Your task to perform on an android device: toggle show notifications on the lock screen Image 0: 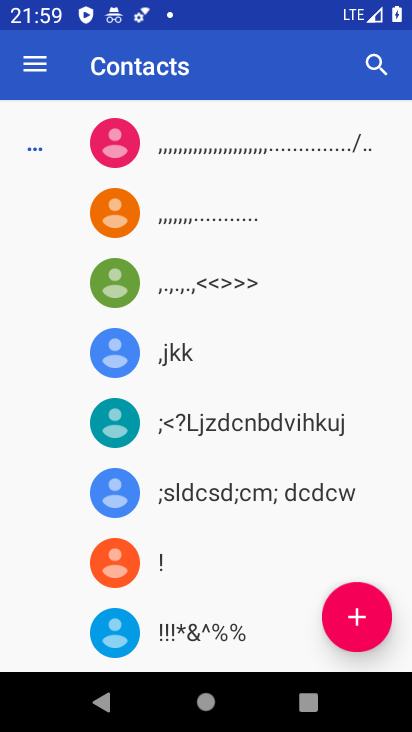
Step 0: press home button
Your task to perform on an android device: toggle show notifications on the lock screen Image 1: 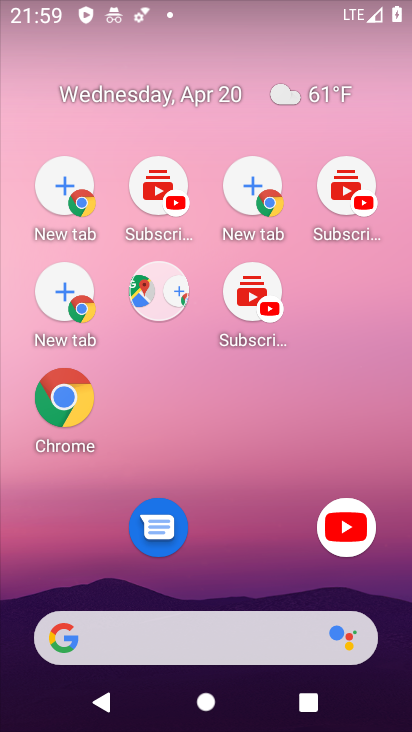
Step 1: drag from (277, 592) to (150, 252)
Your task to perform on an android device: toggle show notifications on the lock screen Image 2: 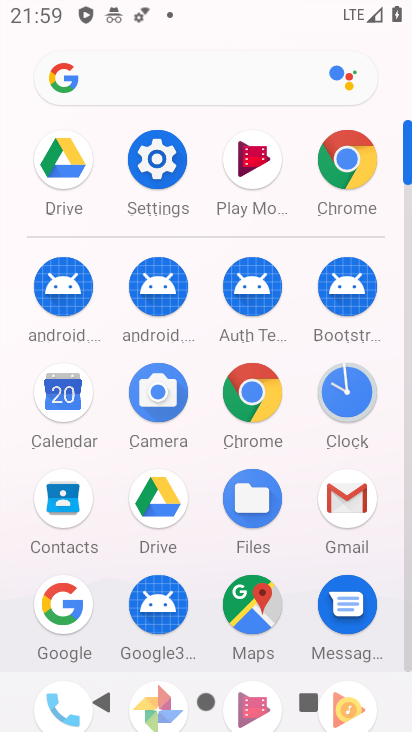
Step 2: drag from (318, 616) to (104, 133)
Your task to perform on an android device: toggle show notifications on the lock screen Image 3: 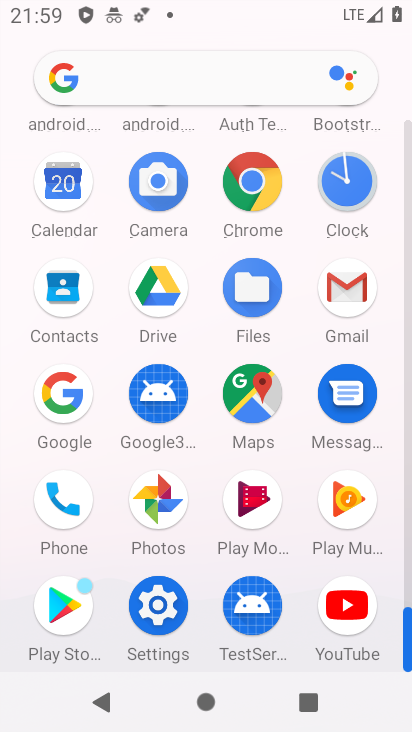
Step 3: click (149, 158)
Your task to perform on an android device: toggle show notifications on the lock screen Image 4: 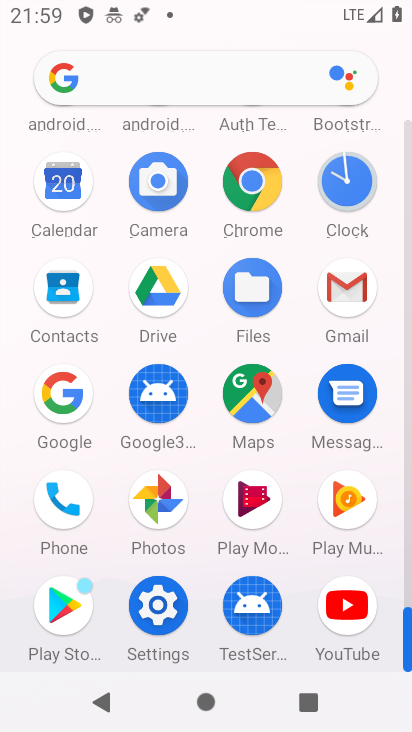
Step 4: click (149, 158)
Your task to perform on an android device: toggle show notifications on the lock screen Image 5: 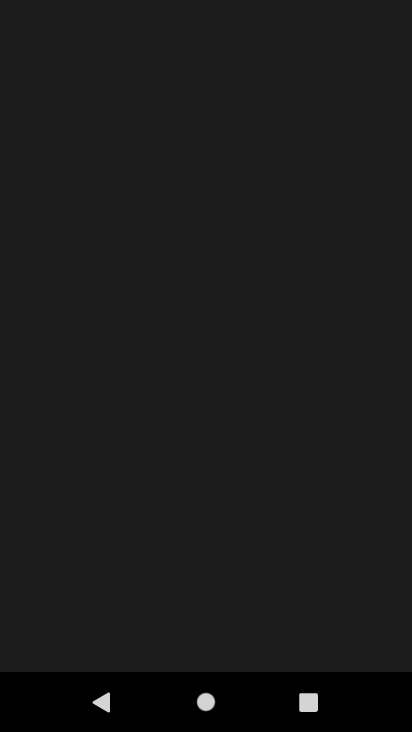
Step 5: click (399, 549)
Your task to perform on an android device: toggle show notifications on the lock screen Image 6: 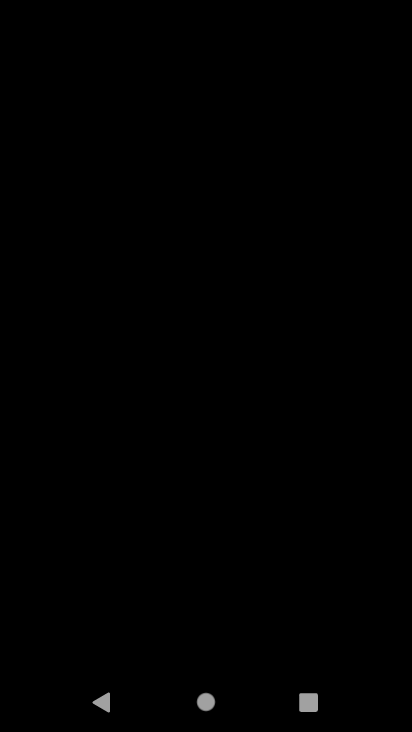
Step 6: drag from (411, 569) to (400, 530)
Your task to perform on an android device: toggle show notifications on the lock screen Image 7: 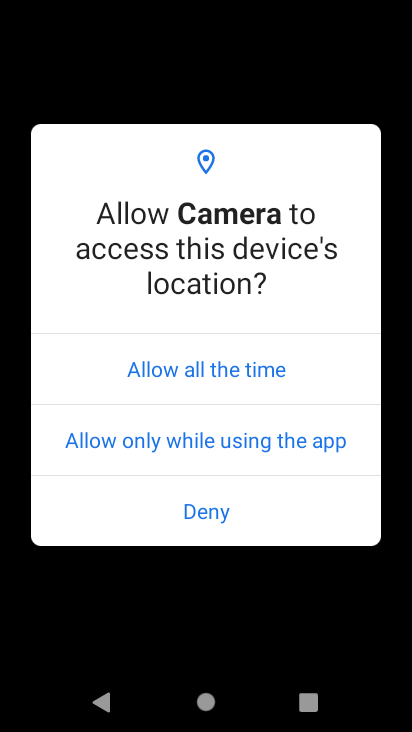
Step 7: click (222, 366)
Your task to perform on an android device: toggle show notifications on the lock screen Image 8: 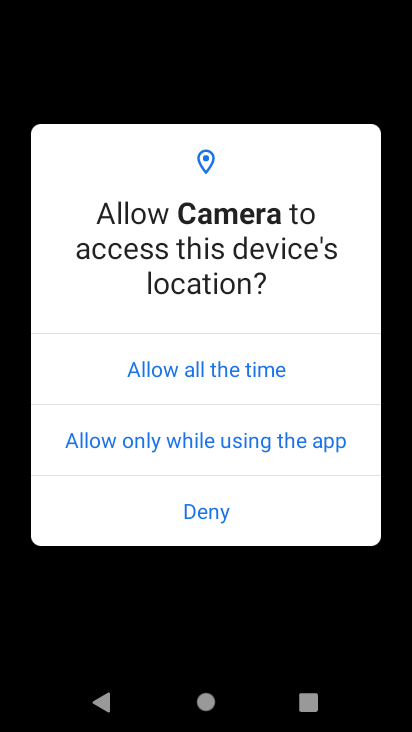
Step 8: press home button
Your task to perform on an android device: toggle show notifications on the lock screen Image 9: 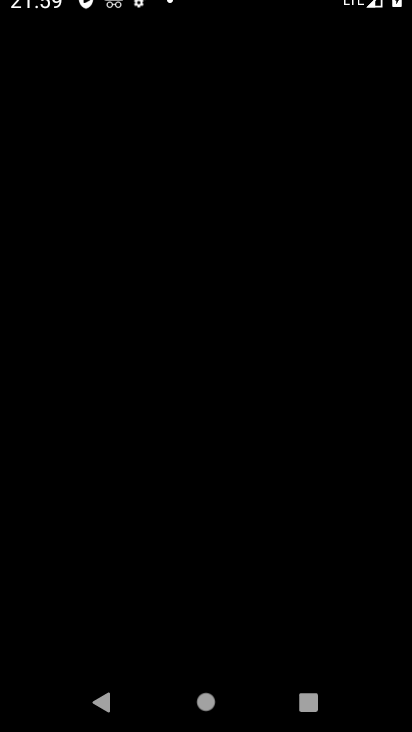
Step 9: press home button
Your task to perform on an android device: toggle show notifications on the lock screen Image 10: 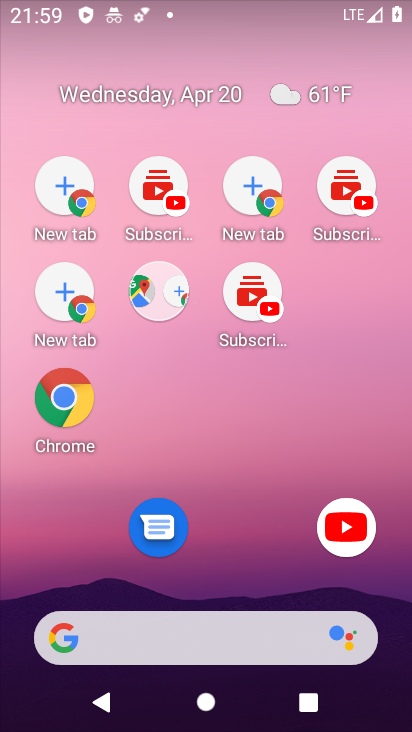
Step 10: click (404, 629)
Your task to perform on an android device: toggle show notifications on the lock screen Image 11: 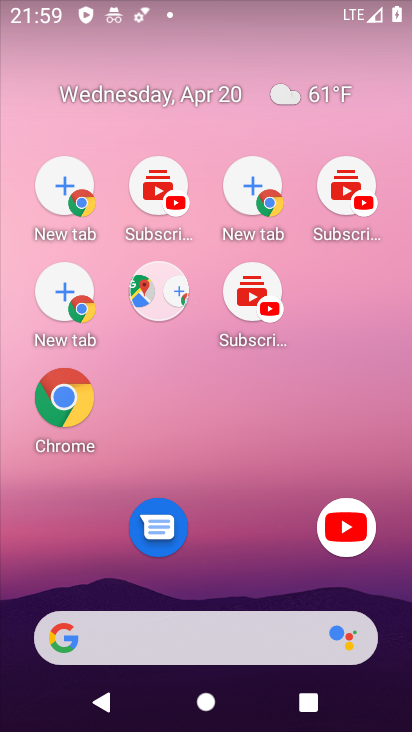
Step 11: press home button
Your task to perform on an android device: toggle show notifications on the lock screen Image 12: 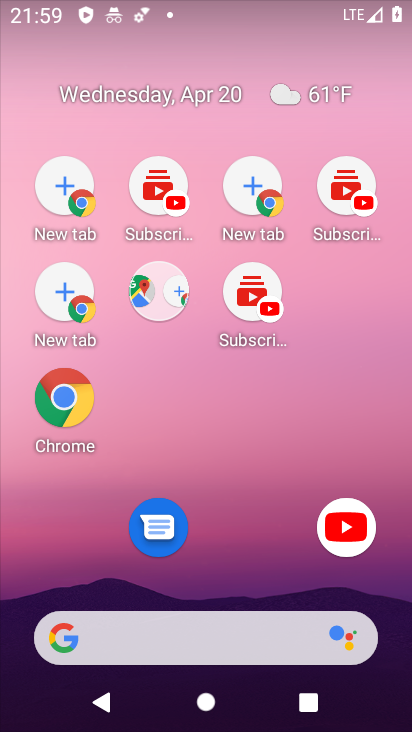
Step 12: drag from (302, 699) to (152, 65)
Your task to perform on an android device: toggle show notifications on the lock screen Image 13: 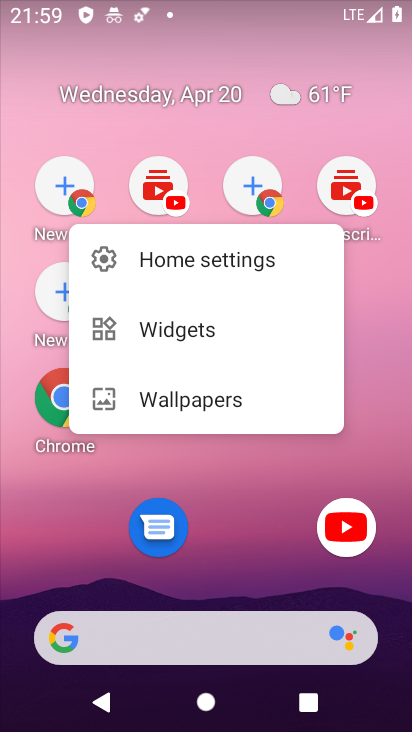
Step 13: drag from (252, 529) to (152, 42)
Your task to perform on an android device: toggle show notifications on the lock screen Image 14: 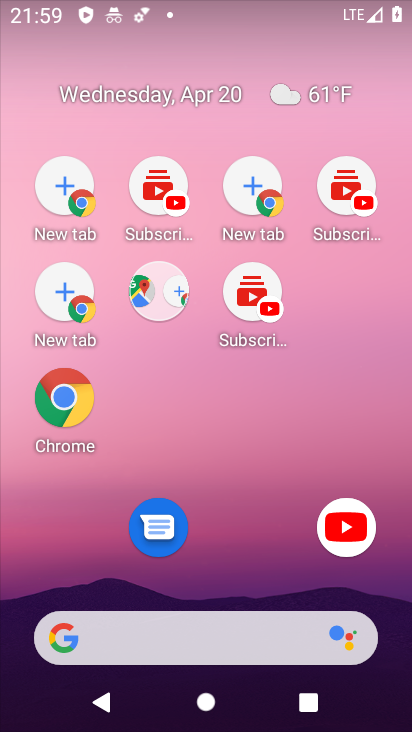
Step 14: drag from (170, 262) to (162, 228)
Your task to perform on an android device: toggle show notifications on the lock screen Image 15: 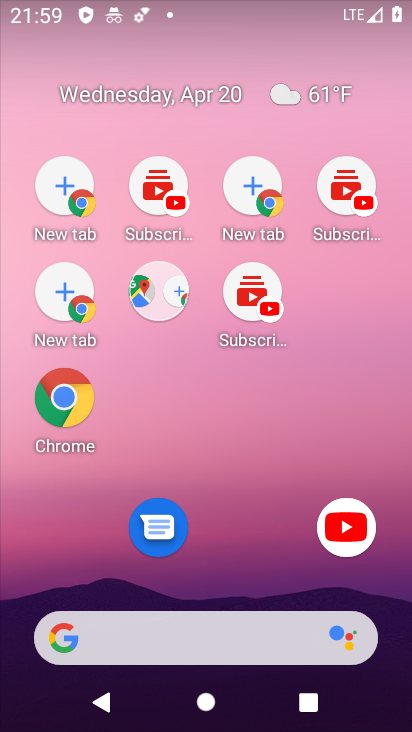
Step 15: click (210, 152)
Your task to perform on an android device: toggle show notifications on the lock screen Image 16: 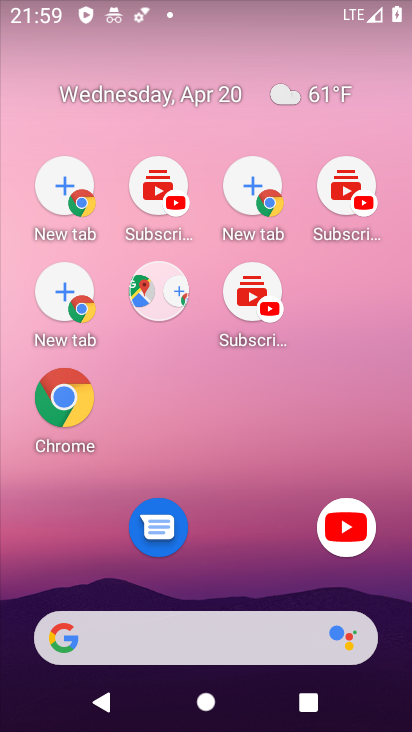
Step 16: drag from (268, 589) to (105, 141)
Your task to perform on an android device: toggle show notifications on the lock screen Image 17: 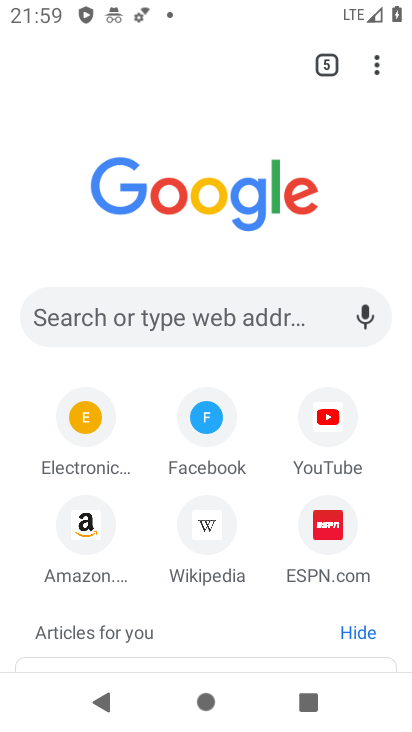
Step 17: drag from (138, 219) to (128, 178)
Your task to perform on an android device: toggle show notifications on the lock screen Image 18: 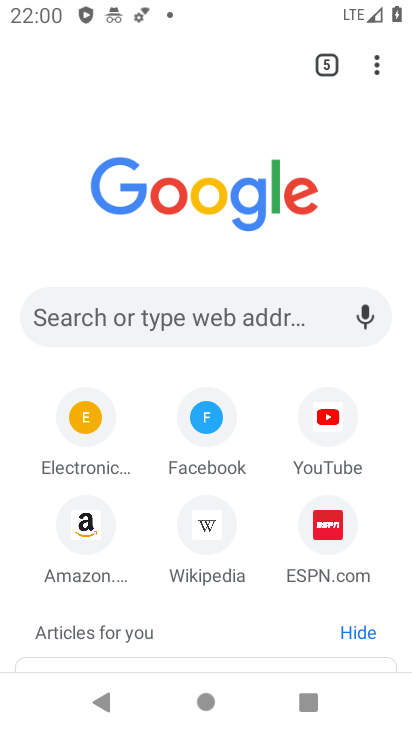
Step 18: press home button
Your task to perform on an android device: toggle show notifications on the lock screen Image 19: 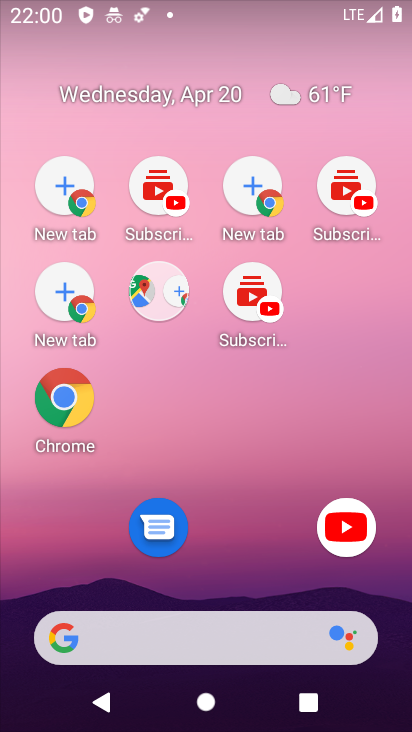
Step 19: drag from (241, 523) to (86, 53)
Your task to perform on an android device: toggle show notifications on the lock screen Image 20: 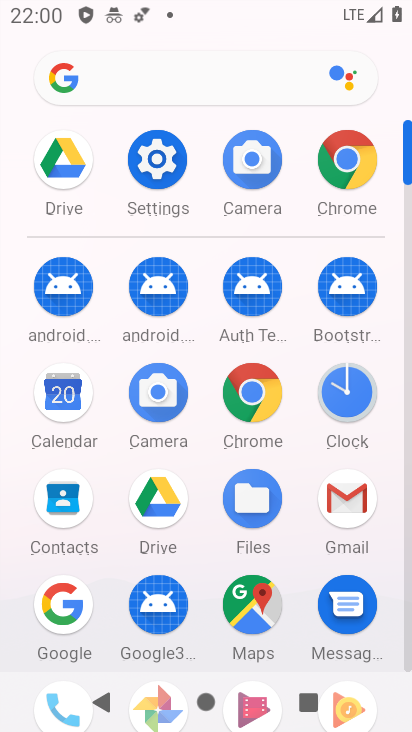
Step 20: click (150, 176)
Your task to perform on an android device: toggle show notifications on the lock screen Image 21: 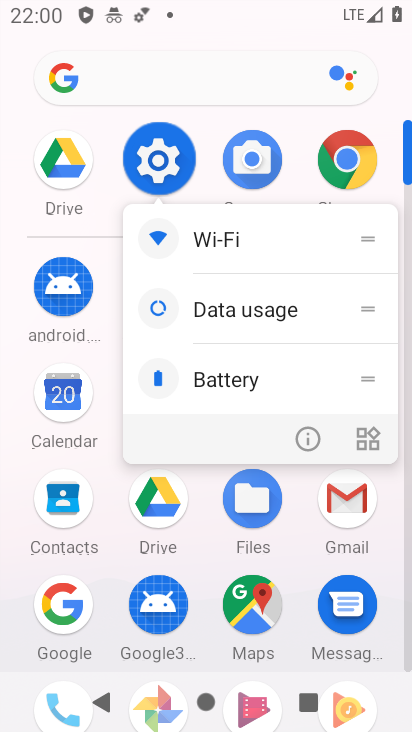
Step 21: click (152, 175)
Your task to perform on an android device: toggle show notifications on the lock screen Image 22: 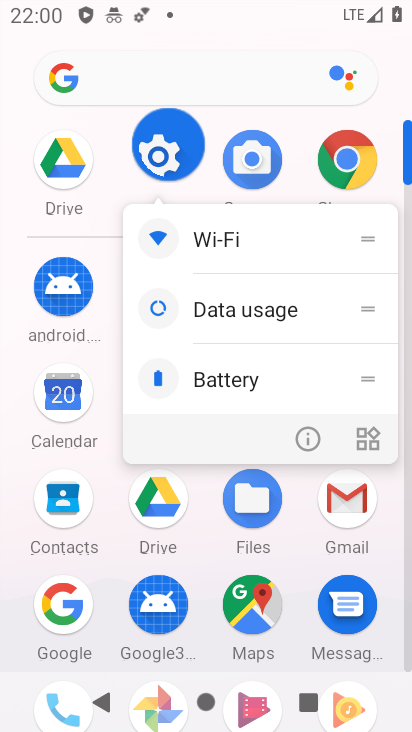
Step 22: click (160, 155)
Your task to perform on an android device: toggle show notifications on the lock screen Image 23: 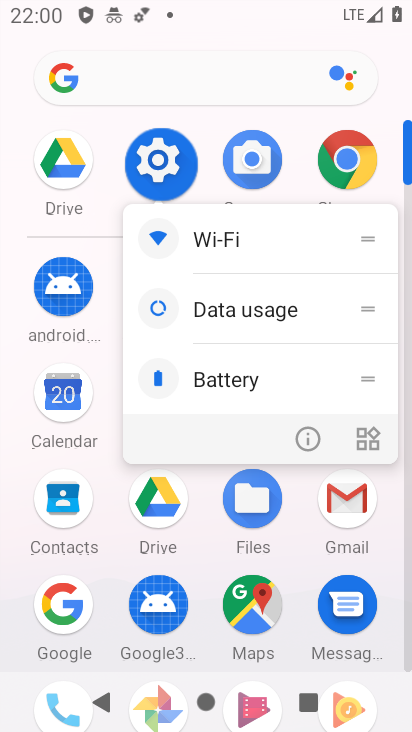
Step 23: click (165, 157)
Your task to perform on an android device: toggle show notifications on the lock screen Image 24: 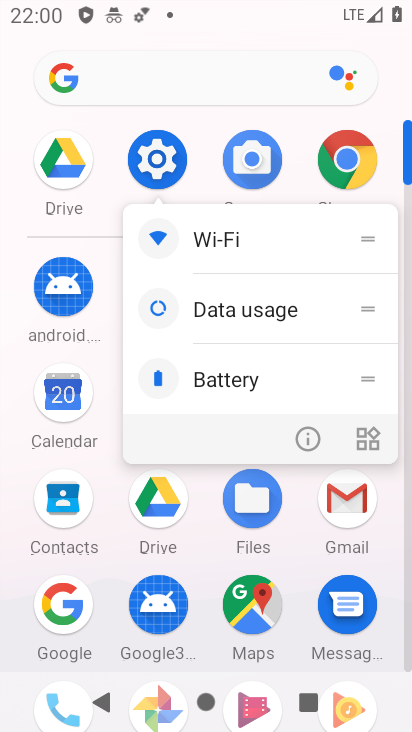
Step 24: click (165, 157)
Your task to perform on an android device: toggle show notifications on the lock screen Image 25: 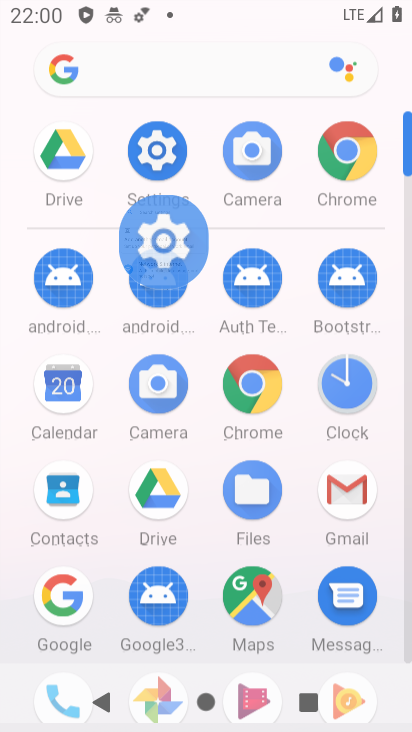
Step 25: click (166, 158)
Your task to perform on an android device: toggle show notifications on the lock screen Image 26: 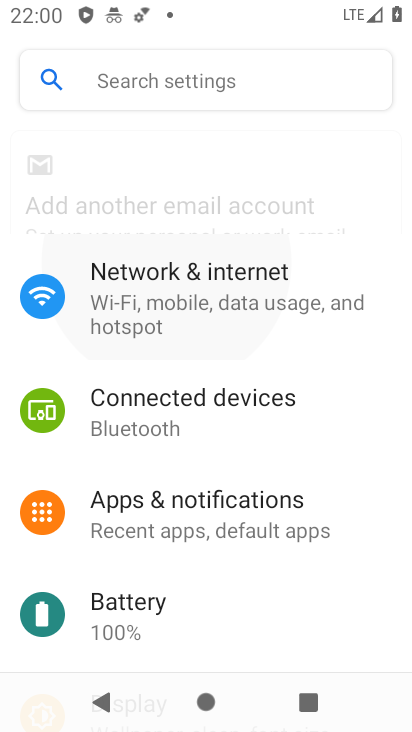
Step 26: click (166, 158)
Your task to perform on an android device: toggle show notifications on the lock screen Image 27: 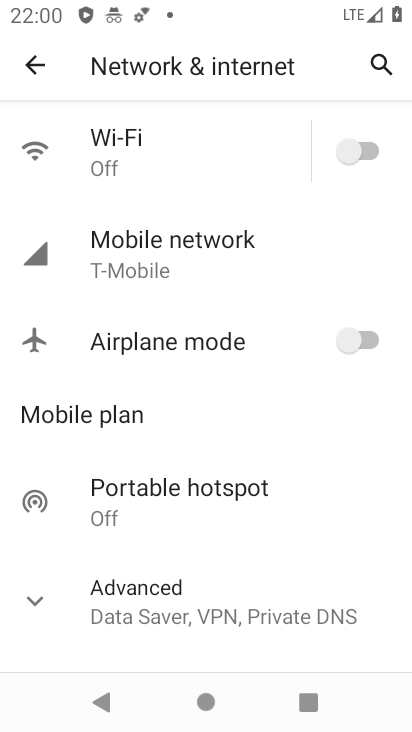
Step 27: click (125, 251)
Your task to perform on an android device: toggle show notifications on the lock screen Image 28: 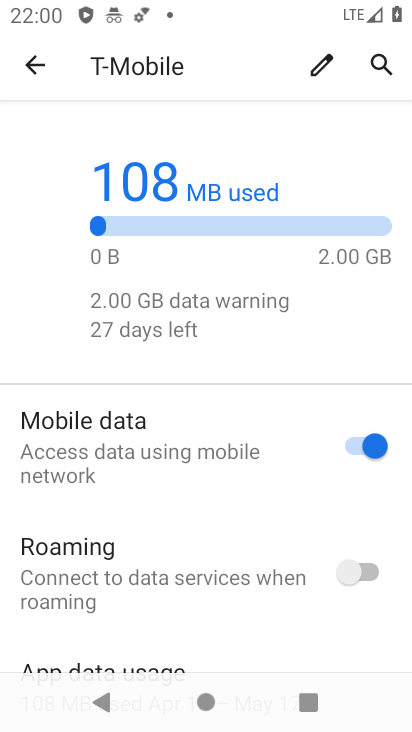
Step 28: click (40, 64)
Your task to perform on an android device: toggle show notifications on the lock screen Image 29: 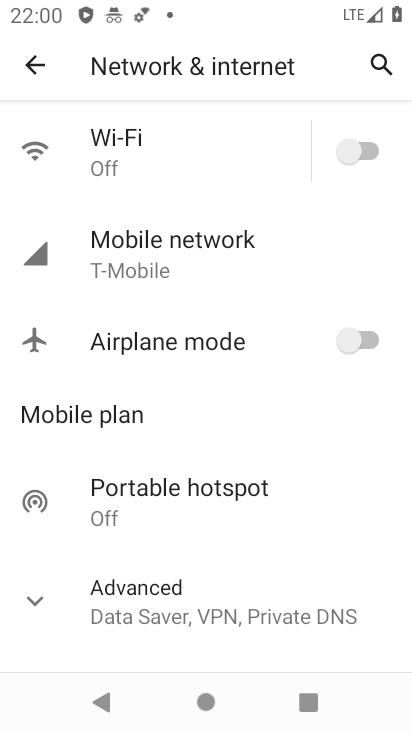
Step 29: click (28, 60)
Your task to perform on an android device: toggle show notifications on the lock screen Image 30: 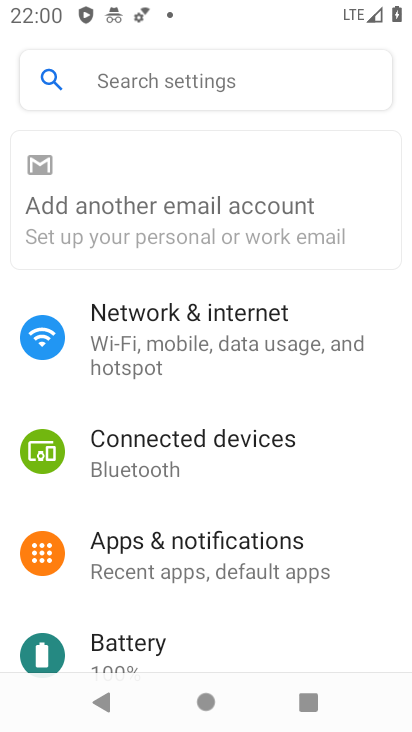
Step 30: click (42, 57)
Your task to perform on an android device: toggle show notifications on the lock screen Image 31: 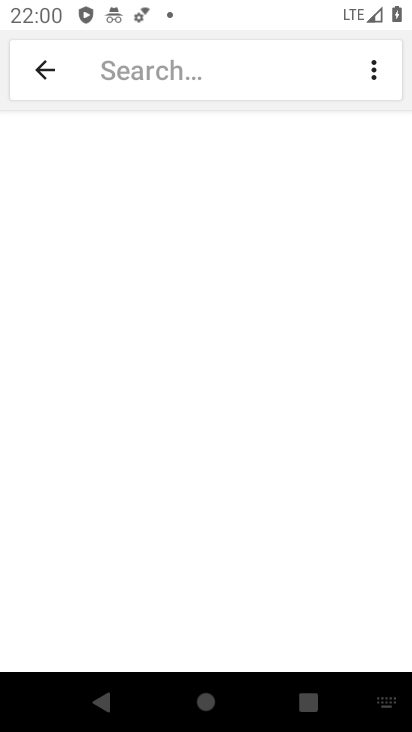
Step 31: click (46, 66)
Your task to perform on an android device: toggle show notifications on the lock screen Image 32: 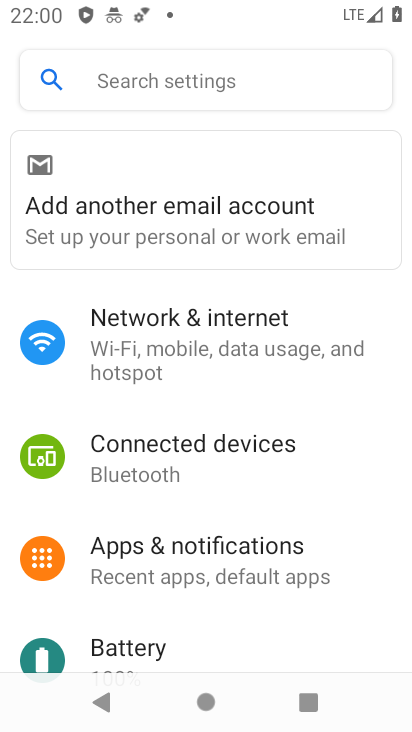
Step 32: click (162, 344)
Your task to perform on an android device: toggle show notifications on the lock screen Image 33: 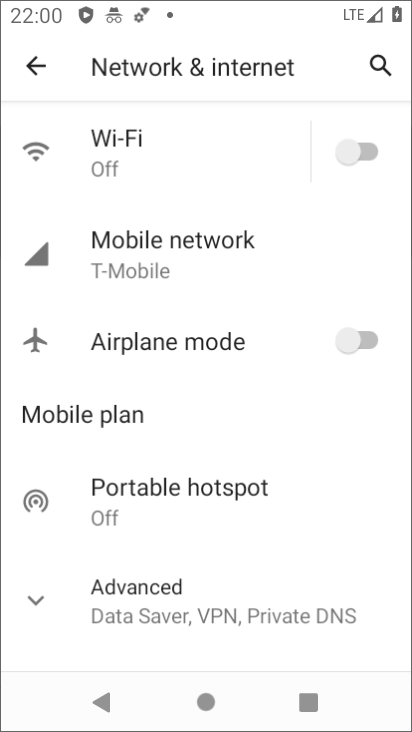
Step 33: click (190, 553)
Your task to perform on an android device: toggle show notifications on the lock screen Image 34: 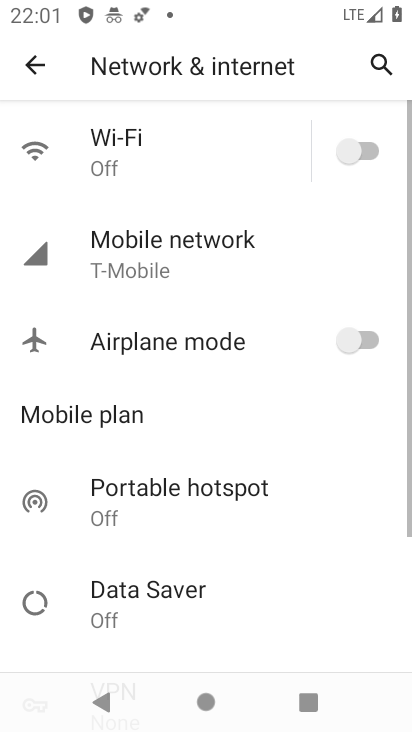
Step 34: click (30, 64)
Your task to perform on an android device: toggle show notifications on the lock screen Image 35: 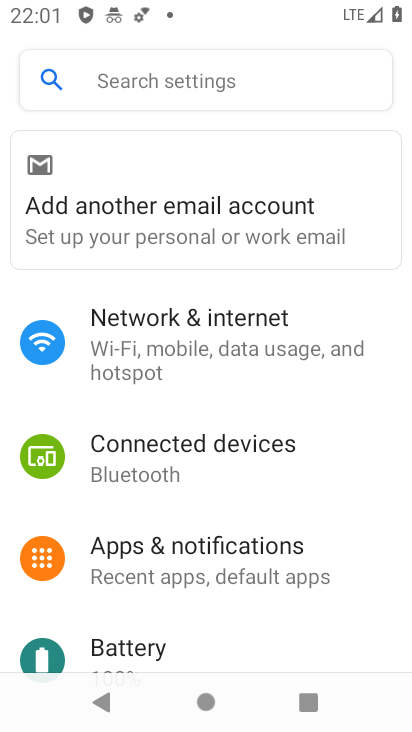
Step 35: click (177, 551)
Your task to perform on an android device: toggle show notifications on the lock screen Image 36: 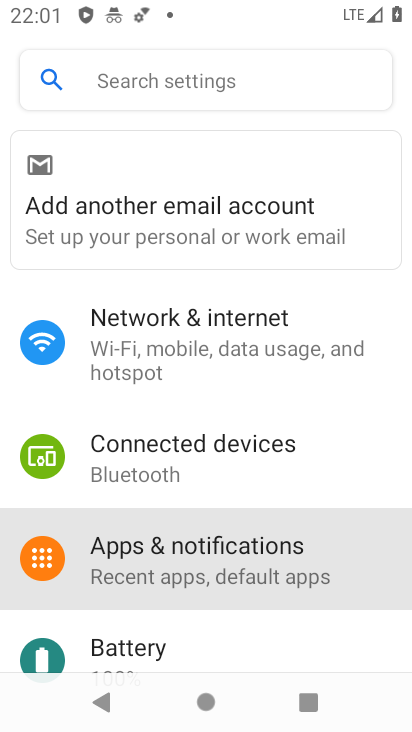
Step 36: click (186, 587)
Your task to perform on an android device: toggle show notifications on the lock screen Image 37: 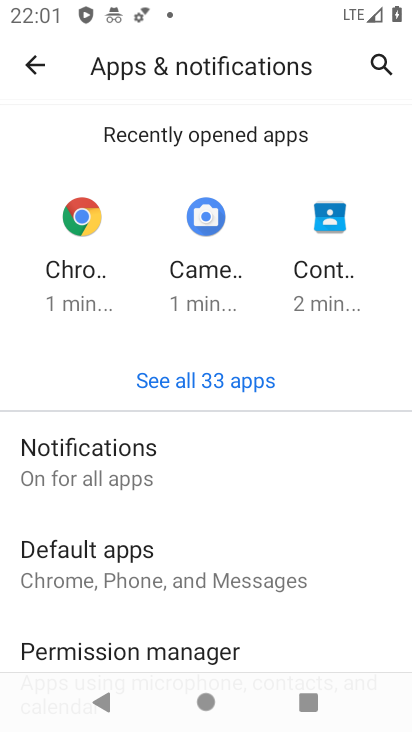
Step 37: click (89, 465)
Your task to perform on an android device: toggle show notifications on the lock screen Image 38: 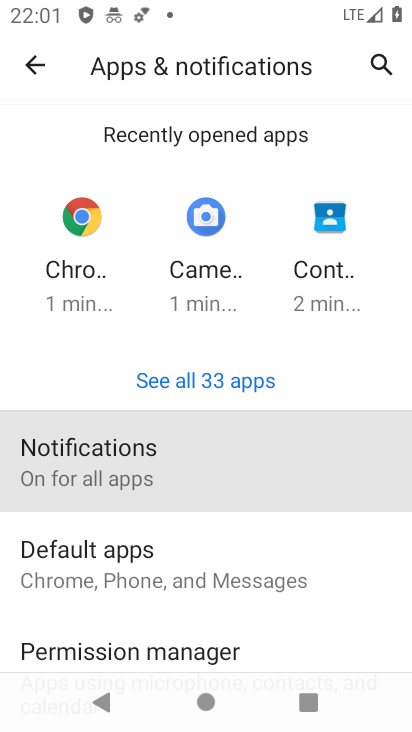
Step 38: click (89, 465)
Your task to perform on an android device: toggle show notifications on the lock screen Image 39: 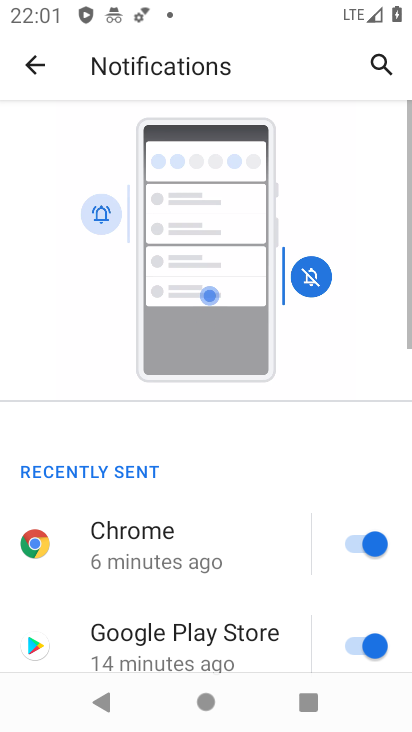
Step 39: drag from (191, 511) to (188, 154)
Your task to perform on an android device: toggle show notifications on the lock screen Image 40: 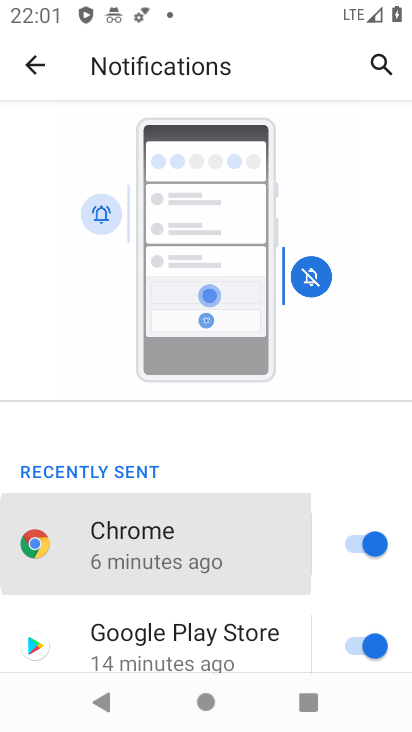
Step 40: drag from (184, 364) to (184, 220)
Your task to perform on an android device: toggle show notifications on the lock screen Image 41: 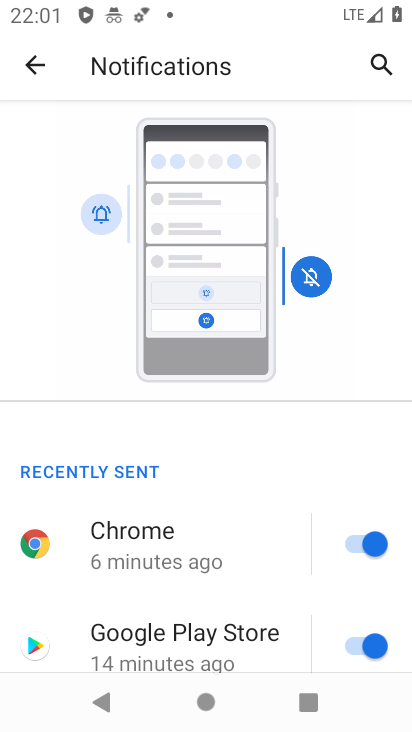
Step 41: drag from (238, 370) to (238, 200)
Your task to perform on an android device: toggle show notifications on the lock screen Image 42: 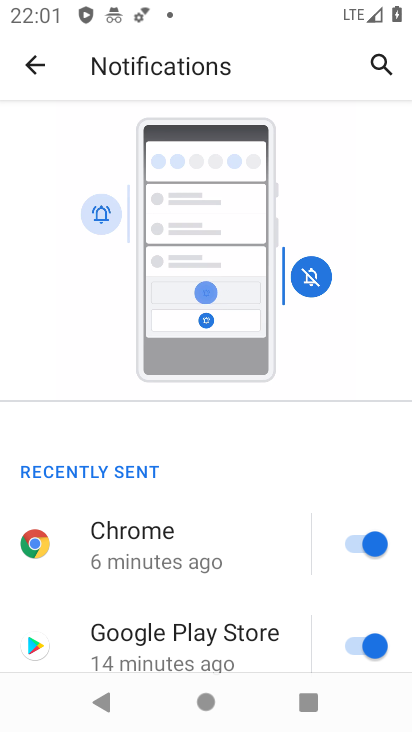
Step 42: drag from (241, 358) to (241, 322)
Your task to perform on an android device: toggle show notifications on the lock screen Image 43: 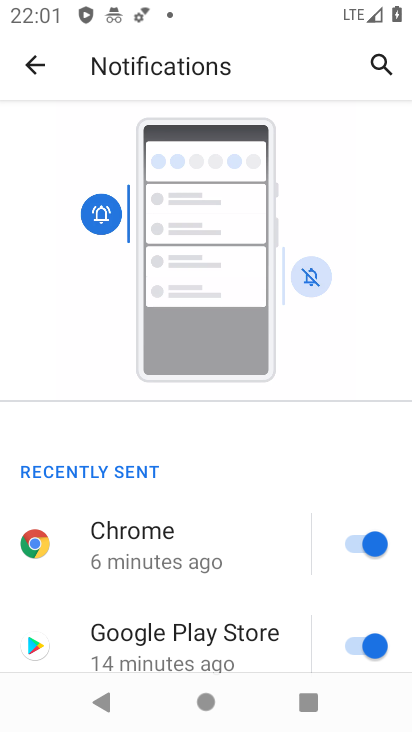
Step 43: drag from (240, 379) to (235, 185)
Your task to perform on an android device: toggle show notifications on the lock screen Image 44: 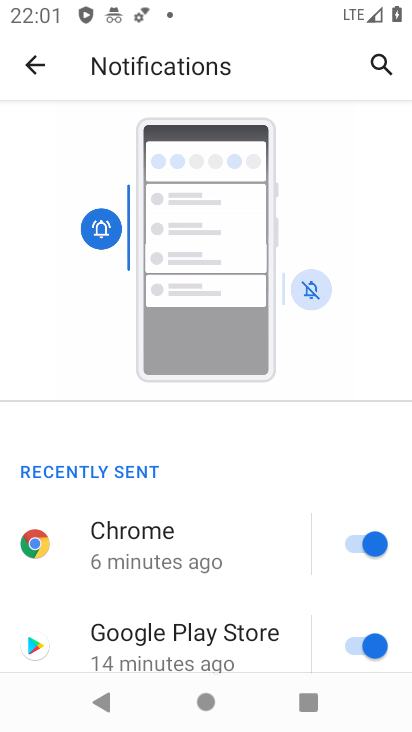
Step 44: drag from (214, 158) to (294, 155)
Your task to perform on an android device: toggle show notifications on the lock screen Image 45: 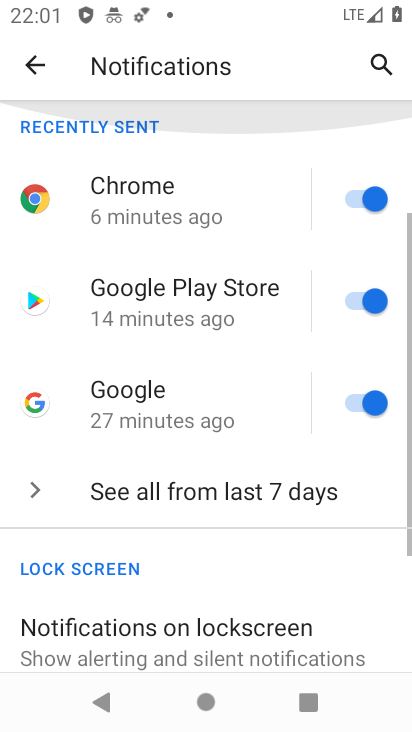
Step 45: click (223, 145)
Your task to perform on an android device: toggle show notifications on the lock screen Image 46: 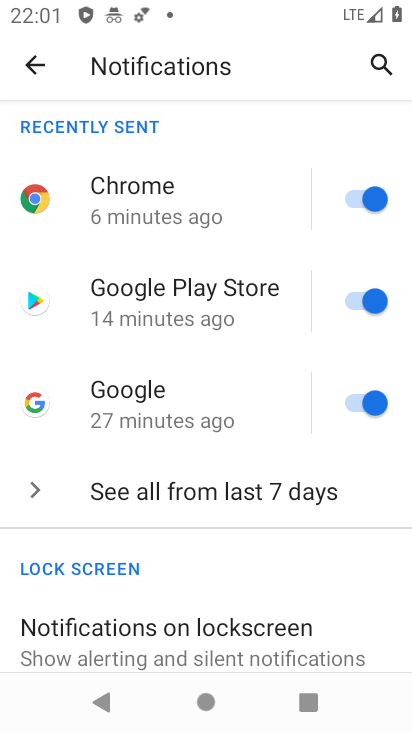
Step 46: drag from (206, 324) to (206, 163)
Your task to perform on an android device: toggle show notifications on the lock screen Image 47: 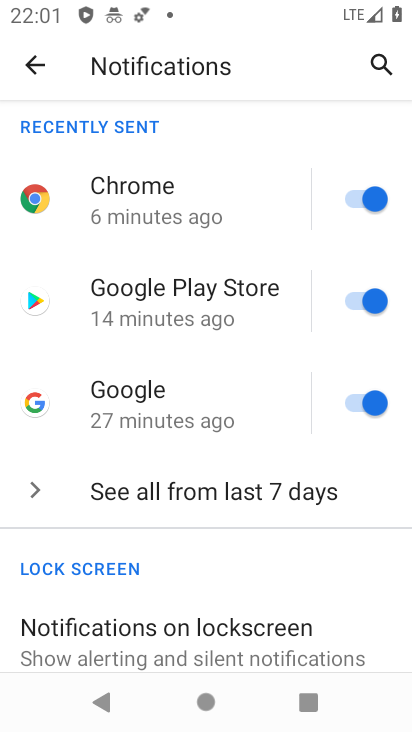
Step 47: drag from (218, 390) to (206, 290)
Your task to perform on an android device: toggle show notifications on the lock screen Image 48: 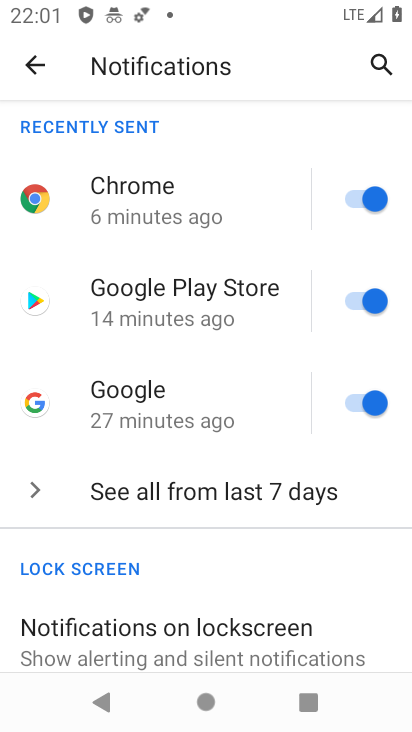
Step 48: click (195, 632)
Your task to perform on an android device: toggle show notifications on the lock screen Image 49: 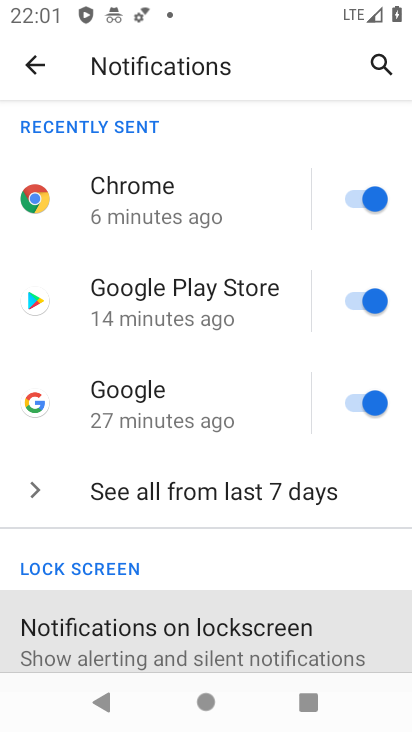
Step 49: click (183, 642)
Your task to perform on an android device: toggle show notifications on the lock screen Image 50: 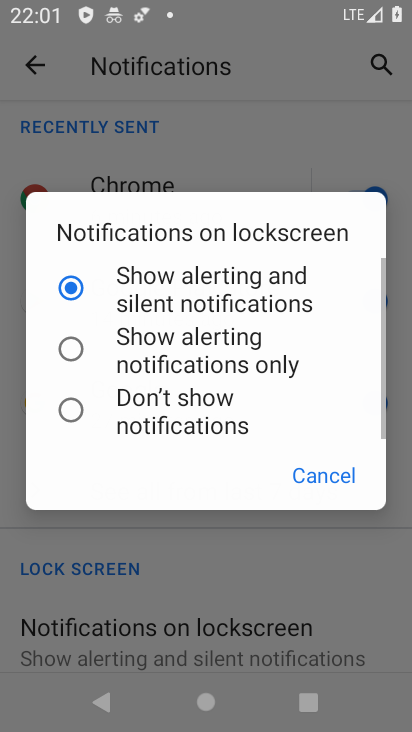
Step 50: click (183, 642)
Your task to perform on an android device: toggle show notifications on the lock screen Image 51: 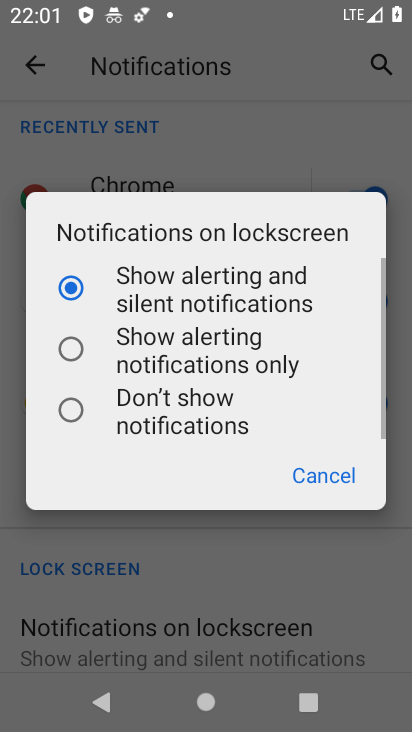
Step 51: click (177, 637)
Your task to perform on an android device: toggle show notifications on the lock screen Image 52: 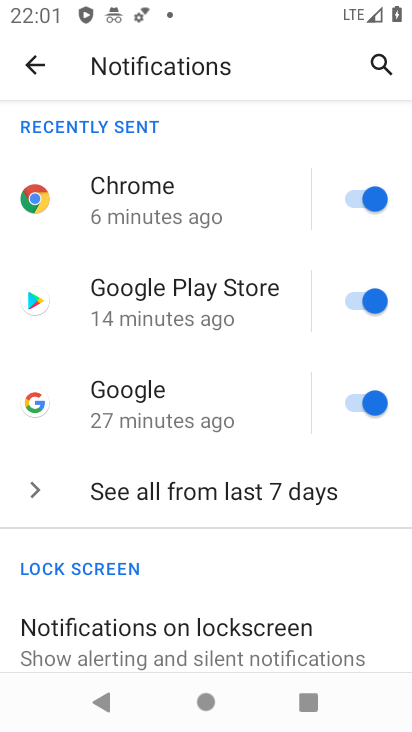
Step 52: click (154, 640)
Your task to perform on an android device: toggle show notifications on the lock screen Image 53: 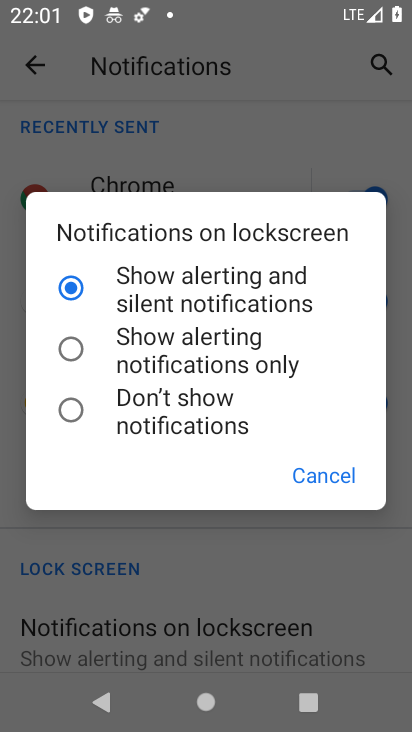
Step 53: press home button
Your task to perform on an android device: toggle show notifications on the lock screen Image 54: 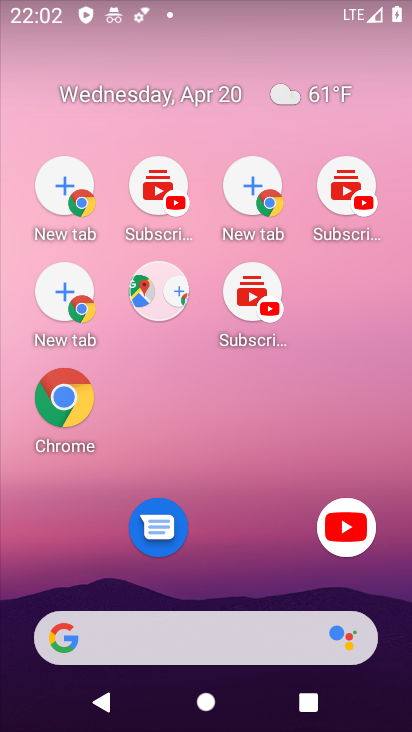
Step 54: drag from (243, 692) to (159, 235)
Your task to perform on an android device: toggle show notifications on the lock screen Image 55: 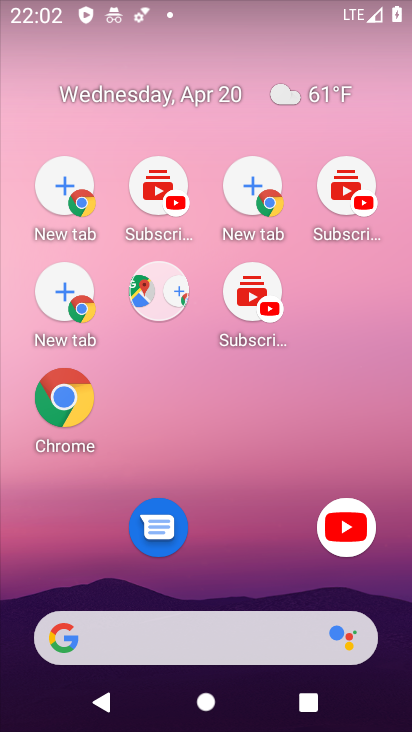
Step 55: drag from (146, 294) to (163, 192)
Your task to perform on an android device: toggle show notifications on the lock screen Image 56: 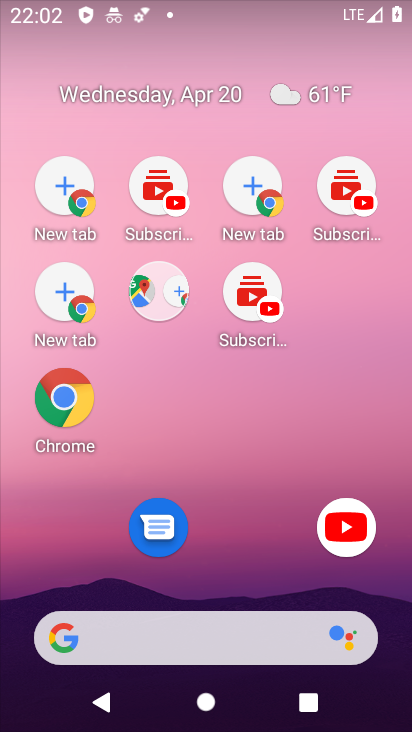
Step 56: drag from (193, 483) to (140, 128)
Your task to perform on an android device: toggle show notifications on the lock screen Image 57: 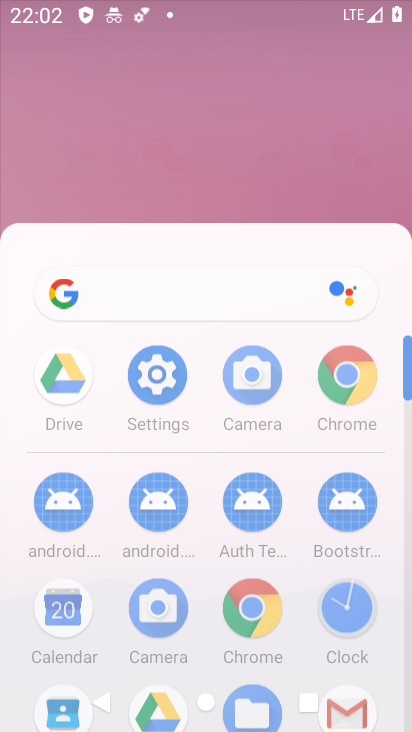
Step 57: drag from (293, 584) to (215, 143)
Your task to perform on an android device: toggle show notifications on the lock screen Image 58: 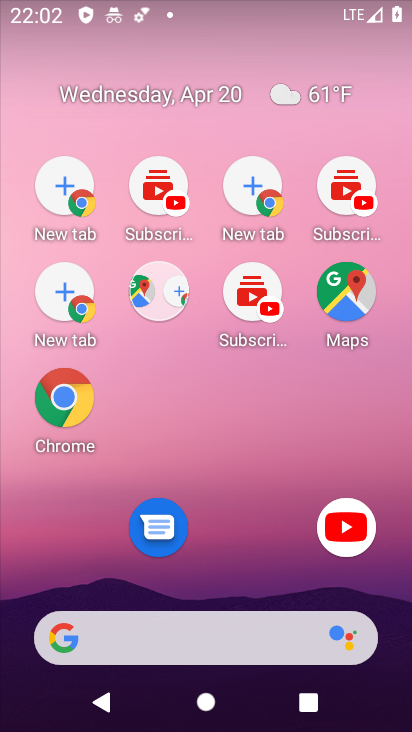
Step 58: drag from (222, 485) to (116, 182)
Your task to perform on an android device: toggle show notifications on the lock screen Image 59: 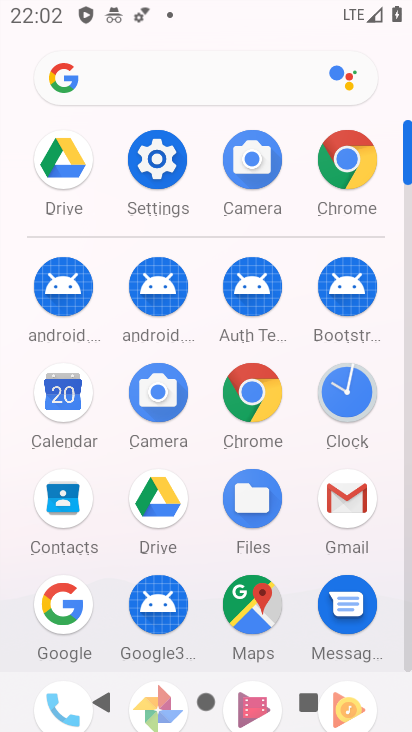
Step 59: click (160, 157)
Your task to perform on an android device: toggle show notifications on the lock screen Image 60: 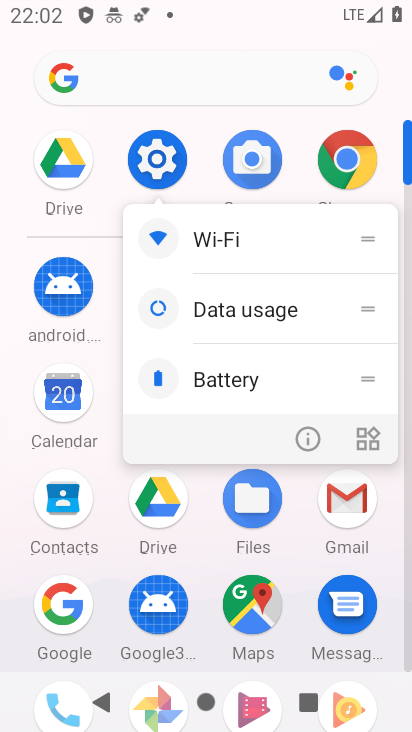
Step 60: click (160, 157)
Your task to perform on an android device: toggle show notifications on the lock screen Image 61: 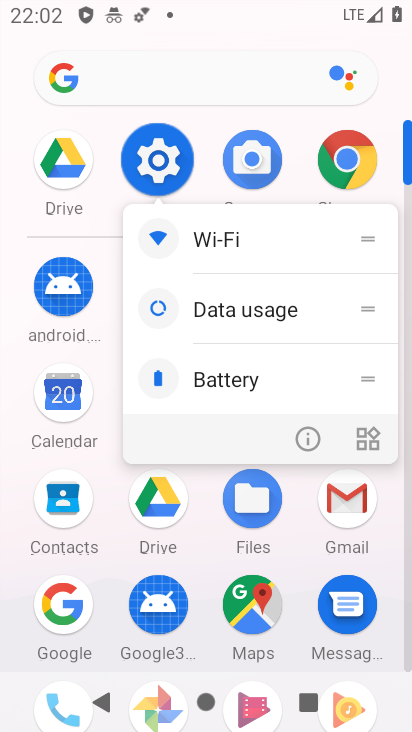
Step 61: click (162, 162)
Your task to perform on an android device: toggle show notifications on the lock screen Image 62: 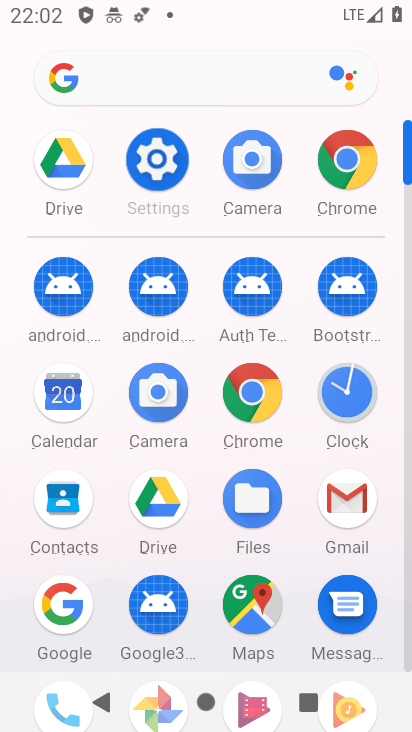
Step 62: click (163, 162)
Your task to perform on an android device: toggle show notifications on the lock screen Image 63: 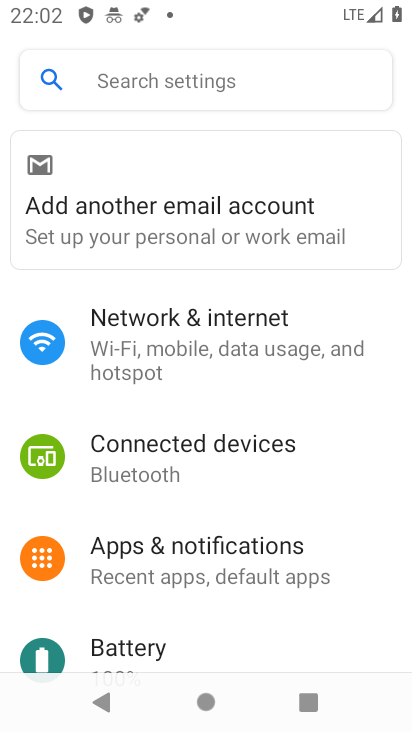
Step 63: click (130, 355)
Your task to perform on an android device: toggle show notifications on the lock screen Image 64: 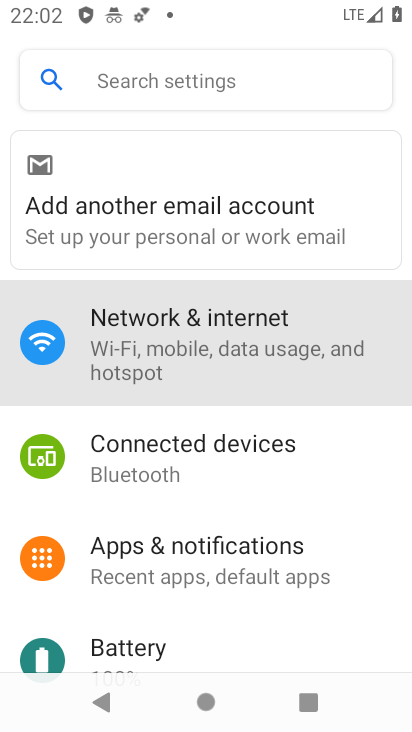
Step 64: click (133, 356)
Your task to perform on an android device: toggle show notifications on the lock screen Image 65: 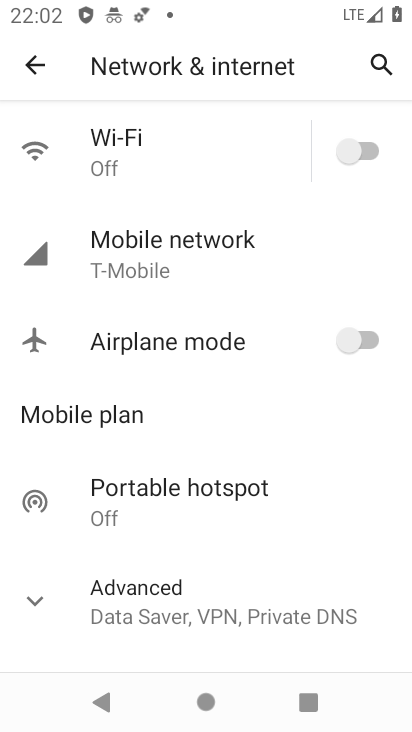
Step 65: click (28, 66)
Your task to perform on an android device: toggle show notifications on the lock screen Image 66: 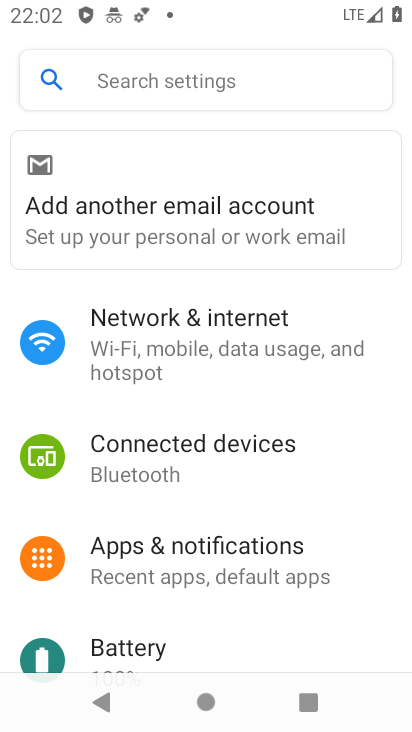
Step 66: click (172, 571)
Your task to perform on an android device: toggle show notifications on the lock screen Image 67: 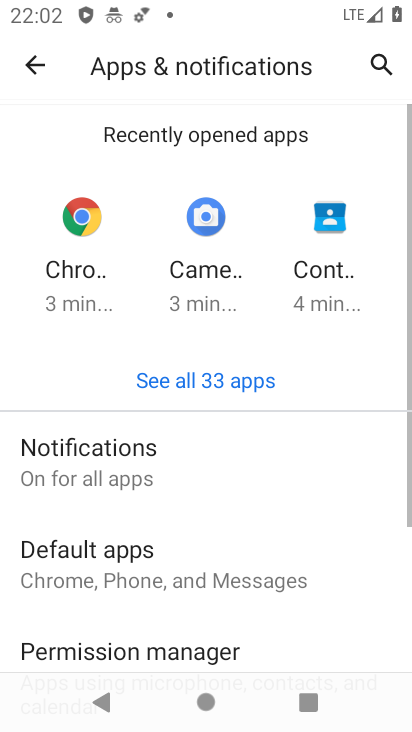
Step 67: click (32, 61)
Your task to perform on an android device: toggle show notifications on the lock screen Image 68: 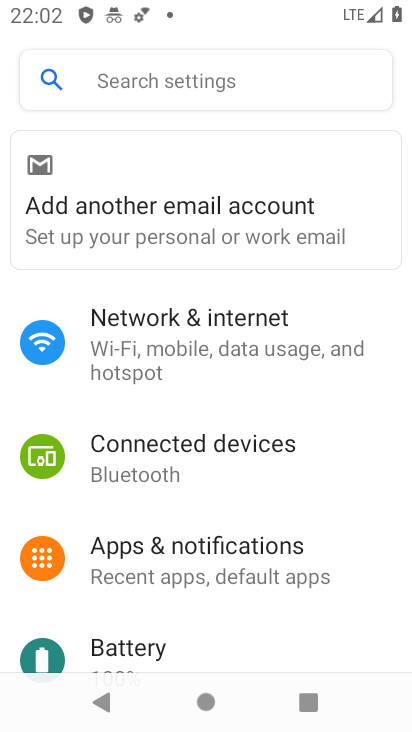
Step 68: click (280, 170)
Your task to perform on an android device: toggle show notifications on the lock screen Image 69: 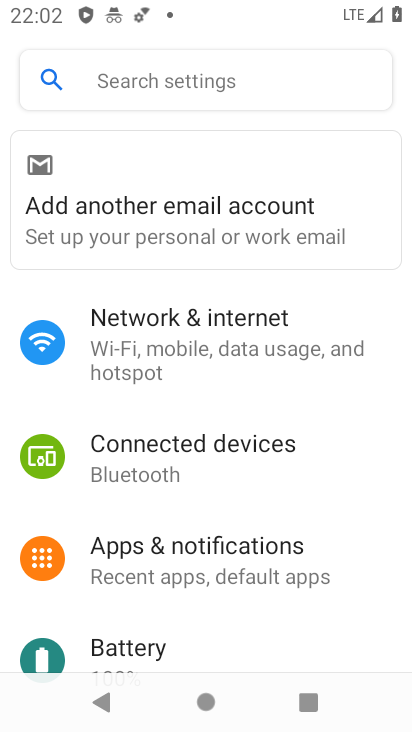
Step 69: drag from (300, 505) to (282, 108)
Your task to perform on an android device: toggle show notifications on the lock screen Image 70: 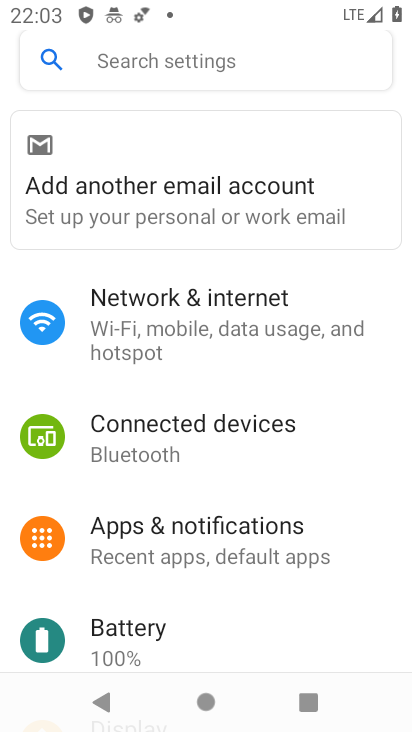
Step 70: click (203, 310)
Your task to perform on an android device: toggle show notifications on the lock screen Image 71: 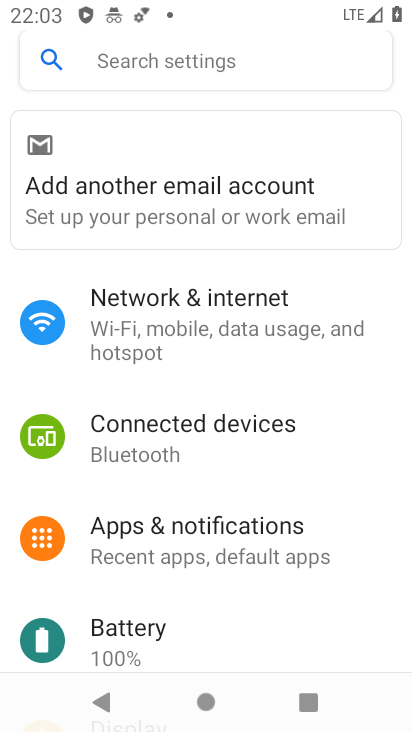
Step 71: click (207, 323)
Your task to perform on an android device: toggle show notifications on the lock screen Image 72: 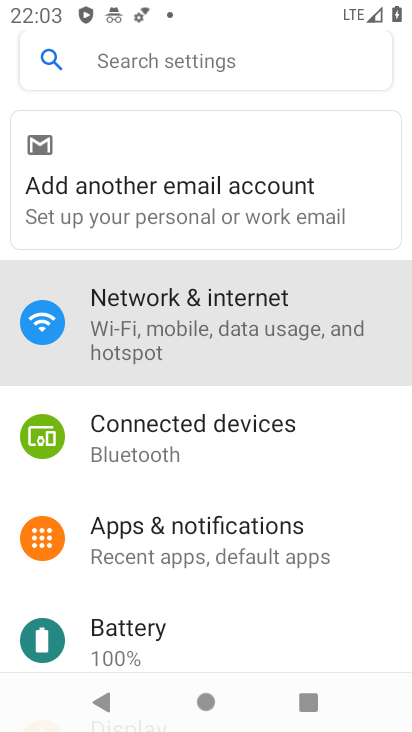
Step 72: click (208, 322)
Your task to perform on an android device: toggle show notifications on the lock screen Image 73: 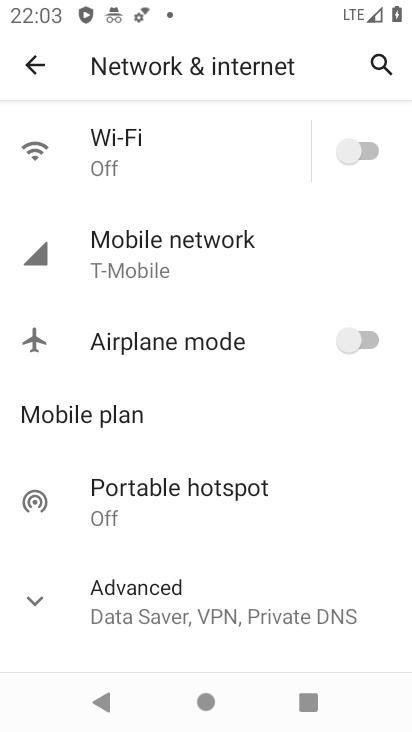
Step 73: click (31, 65)
Your task to perform on an android device: toggle show notifications on the lock screen Image 74: 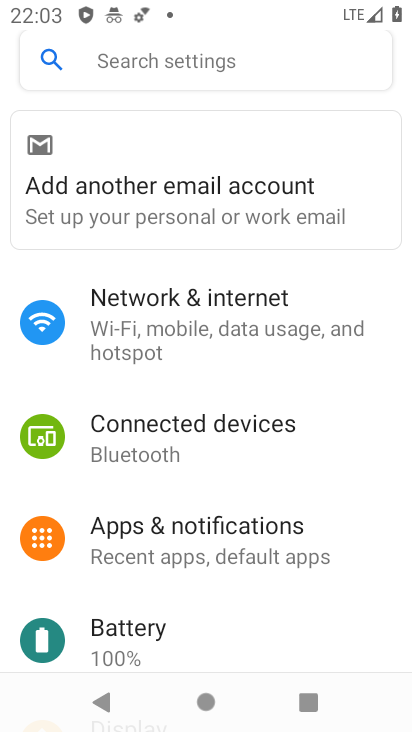
Step 74: click (193, 539)
Your task to perform on an android device: toggle show notifications on the lock screen Image 75: 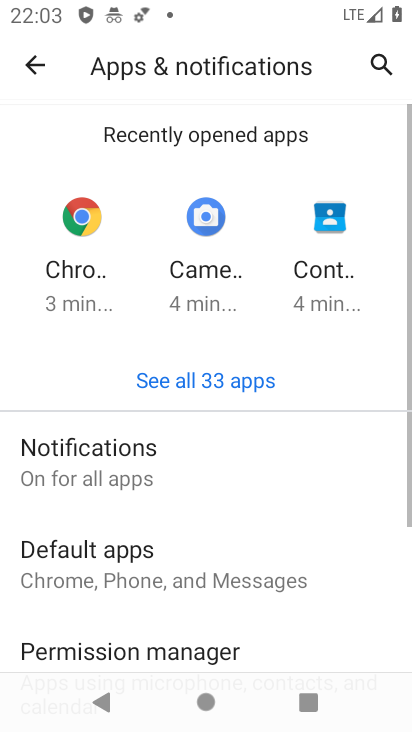
Step 75: click (210, 541)
Your task to perform on an android device: toggle show notifications on the lock screen Image 76: 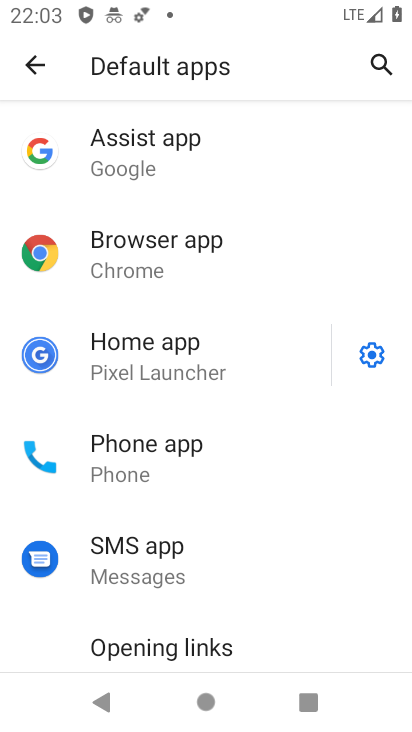
Step 76: click (37, 67)
Your task to perform on an android device: toggle show notifications on the lock screen Image 77: 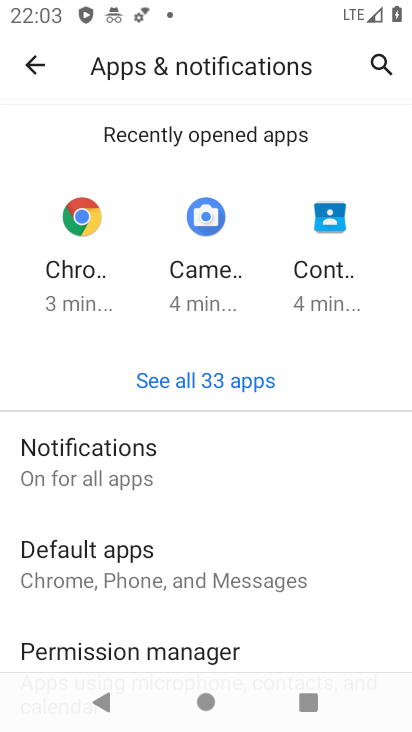
Step 77: click (87, 467)
Your task to perform on an android device: toggle show notifications on the lock screen Image 78: 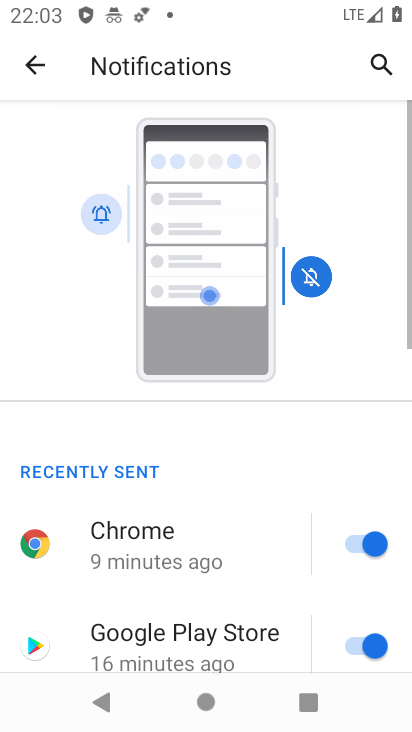
Step 78: drag from (191, 546) to (166, 166)
Your task to perform on an android device: toggle show notifications on the lock screen Image 79: 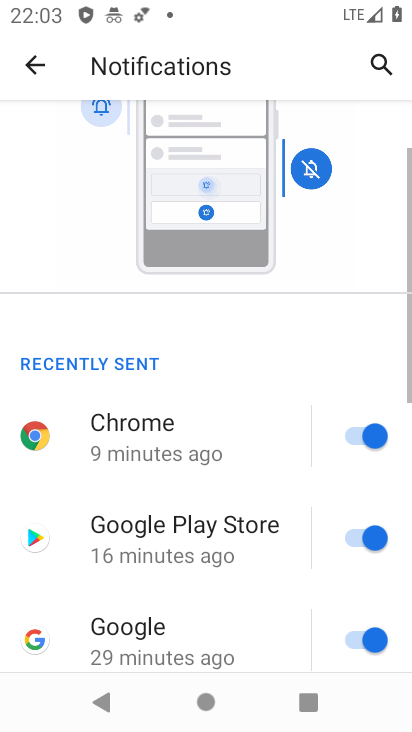
Step 79: drag from (197, 401) to (209, 113)
Your task to perform on an android device: toggle show notifications on the lock screen Image 80: 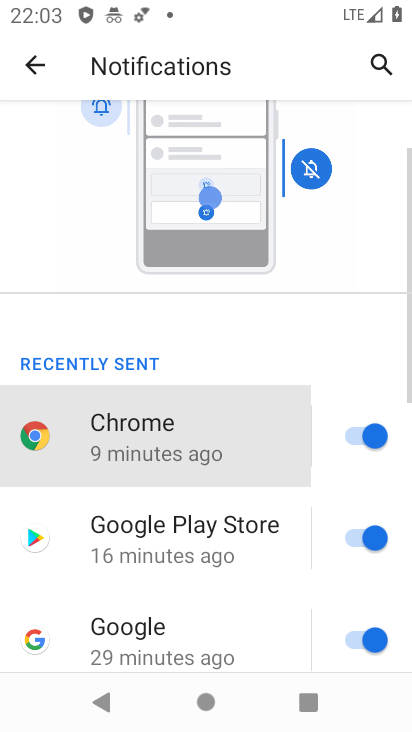
Step 80: drag from (261, 363) to (246, 96)
Your task to perform on an android device: toggle show notifications on the lock screen Image 81: 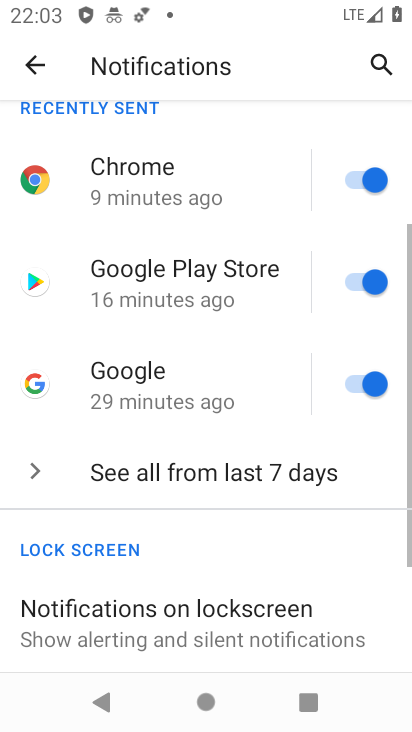
Step 81: drag from (309, 512) to (251, 84)
Your task to perform on an android device: toggle show notifications on the lock screen Image 82: 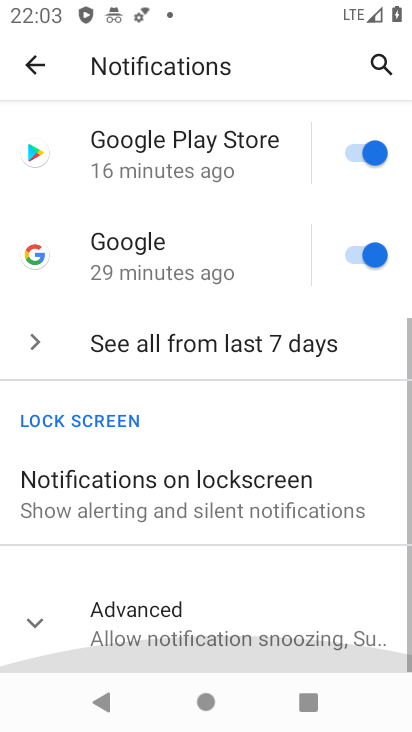
Step 82: drag from (188, 6) to (212, 35)
Your task to perform on an android device: toggle show notifications on the lock screen Image 83: 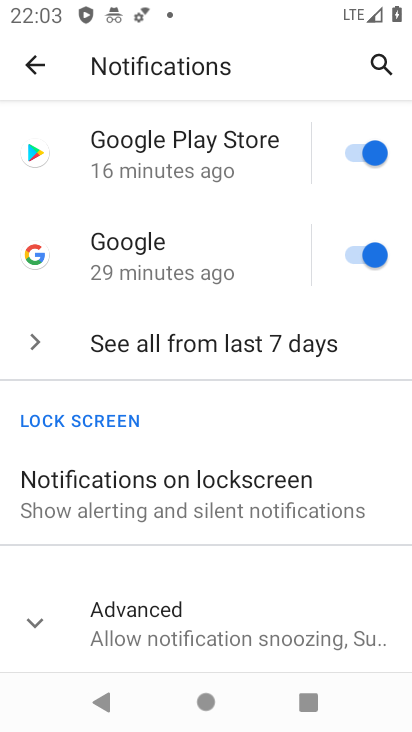
Step 83: click (174, 493)
Your task to perform on an android device: toggle show notifications on the lock screen Image 84: 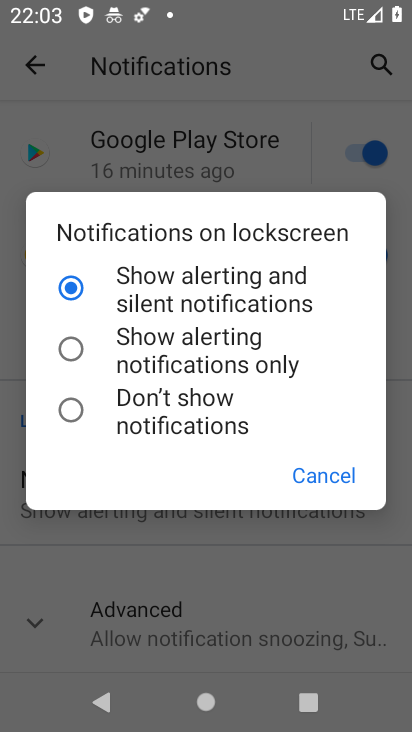
Step 84: click (69, 290)
Your task to perform on an android device: toggle show notifications on the lock screen Image 85: 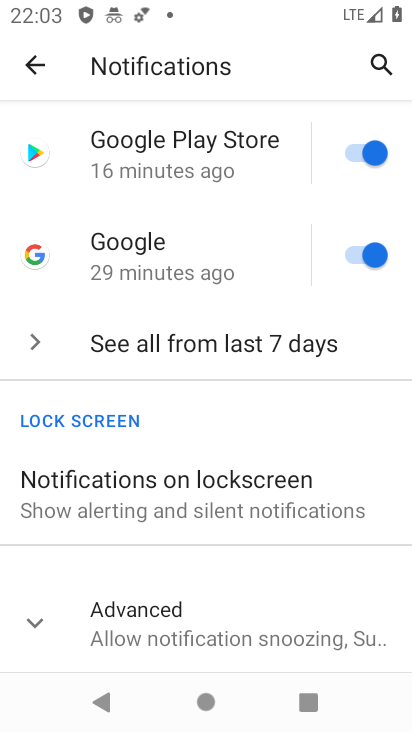
Step 85: click (165, 494)
Your task to perform on an android device: toggle show notifications on the lock screen Image 86: 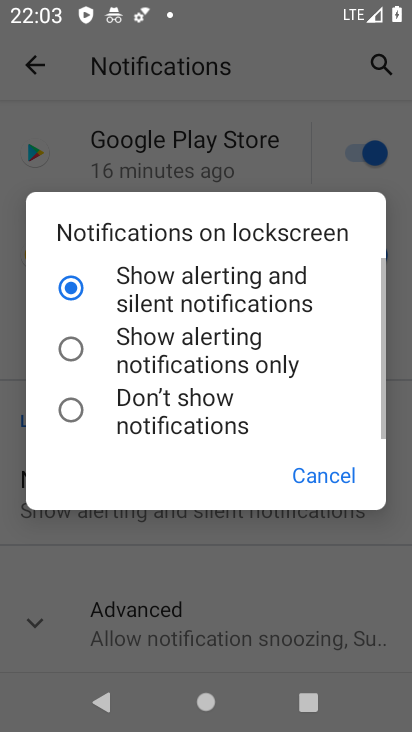
Step 86: click (170, 495)
Your task to perform on an android device: toggle show notifications on the lock screen Image 87: 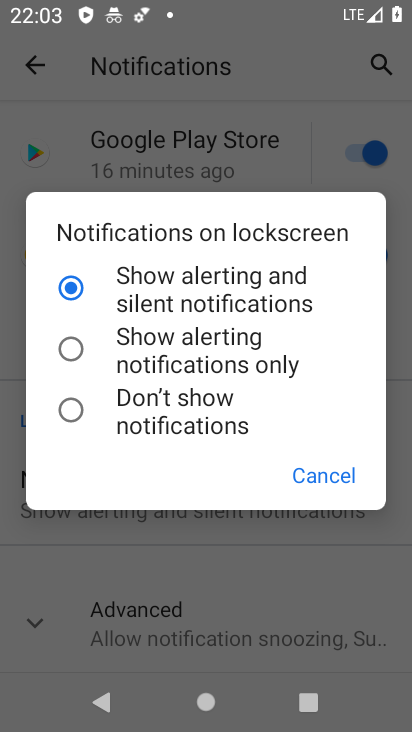
Step 87: click (69, 279)
Your task to perform on an android device: toggle show notifications on the lock screen Image 88: 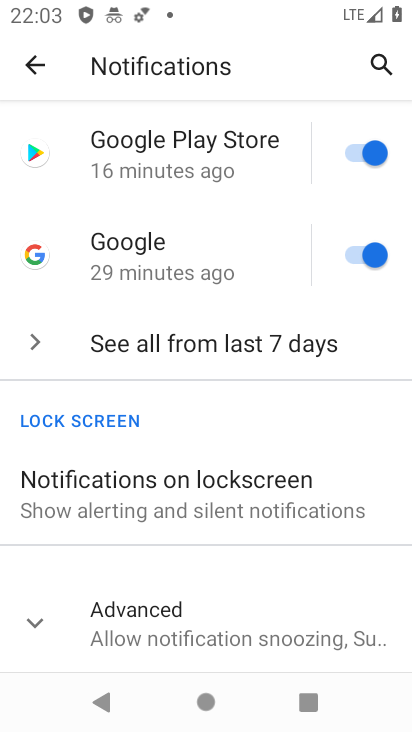
Step 88: task complete